Your task to perform on an android device: Open the phone app and click the voicemail tab. Image 0: 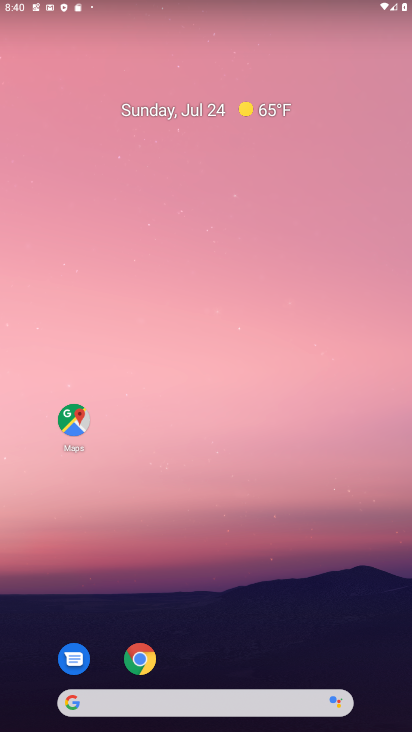
Step 0: drag from (335, 646) to (370, 4)
Your task to perform on an android device: Open the phone app and click the voicemail tab. Image 1: 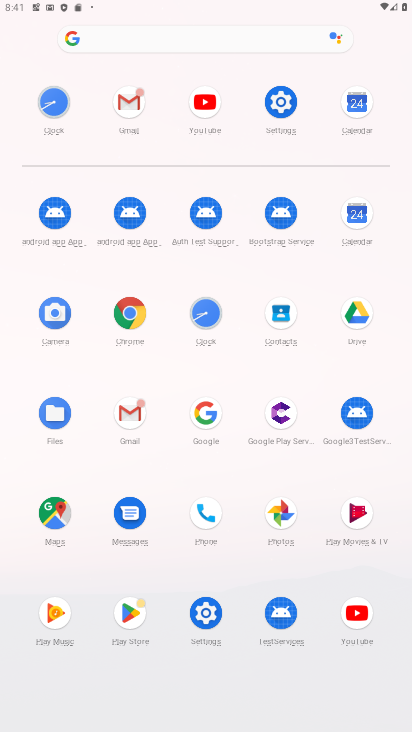
Step 1: click (210, 528)
Your task to perform on an android device: Open the phone app and click the voicemail tab. Image 2: 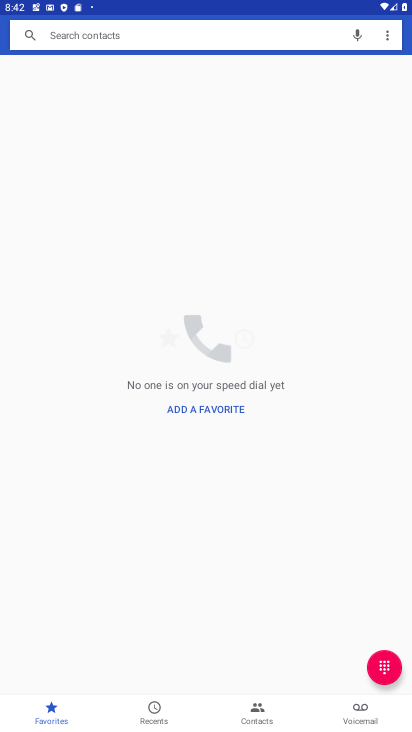
Step 2: click (360, 725)
Your task to perform on an android device: Open the phone app and click the voicemail tab. Image 3: 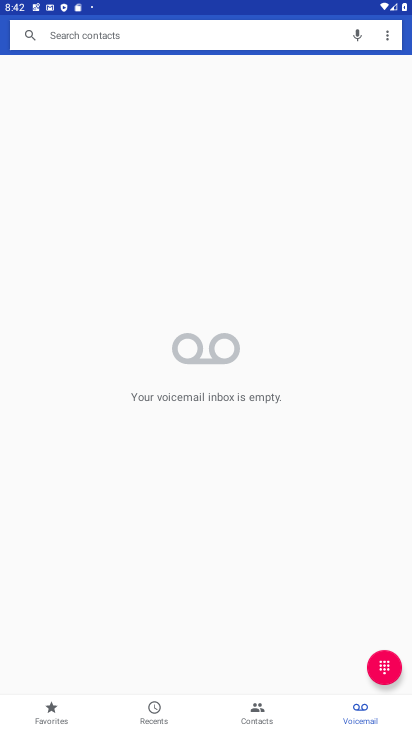
Step 3: task complete